Your task to perform on an android device: Show the shopping cart on walmart. Search for razer huntsman on walmart, select the first entry, add it to the cart, then select checkout. Image 0: 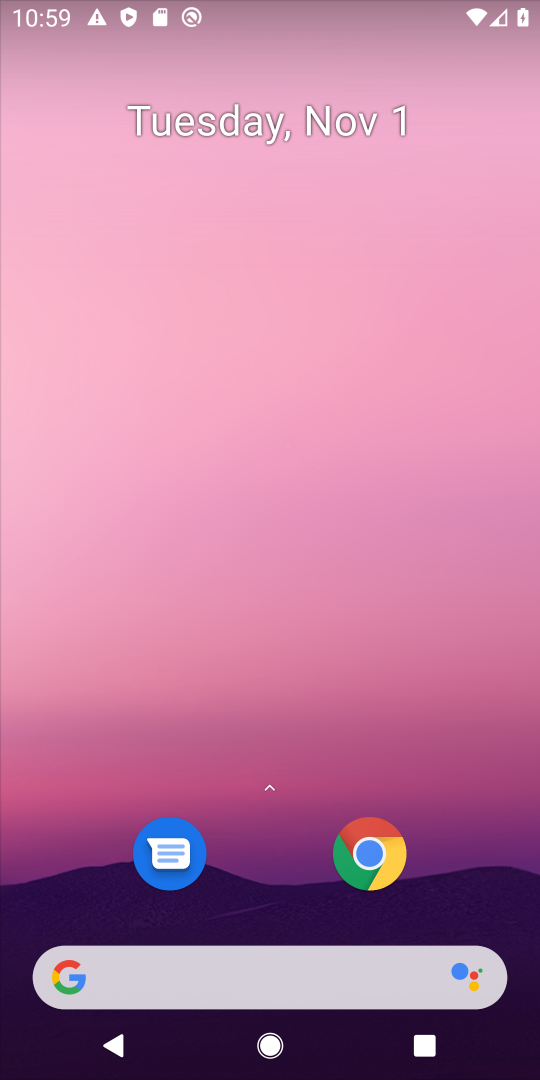
Step 0: task complete